Your task to perform on an android device: turn off smart reply in the gmail app Image 0: 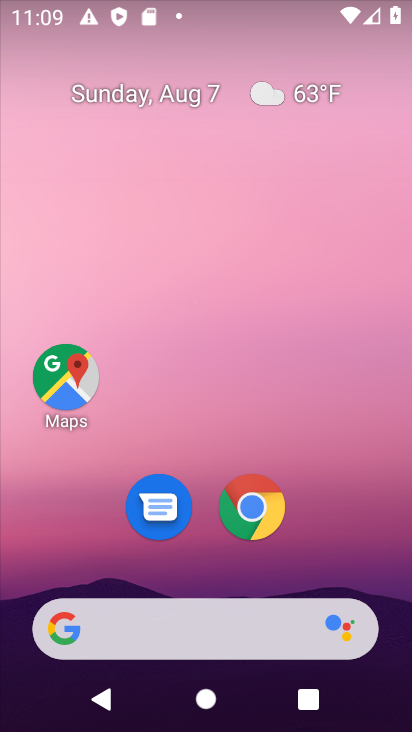
Step 0: drag from (339, 505) to (262, 106)
Your task to perform on an android device: turn off smart reply in the gmail app Image 1: 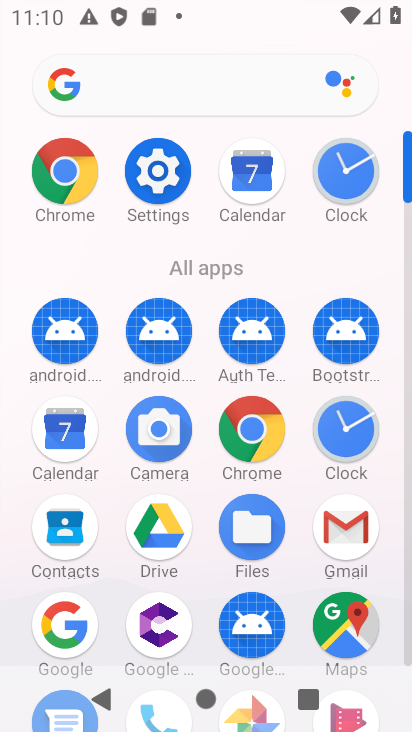
Step 1: click (333, 541)
Your task to perform on an android device: turn off smart reply in the gmail app Image 2: 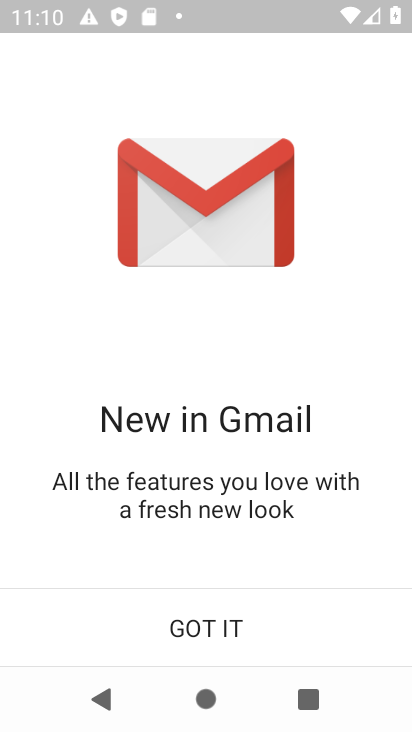
Step 2: click (274, 623)
Your task to perform on an android device: turn off smart reply in the gmail app Image 3: 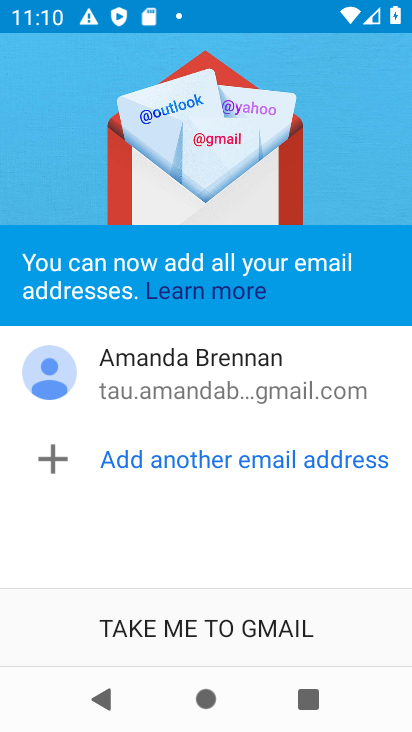
Step 3: click (208, 618)
Your task to perform on an android device: turn off smart reply in the gmail app Image 4: 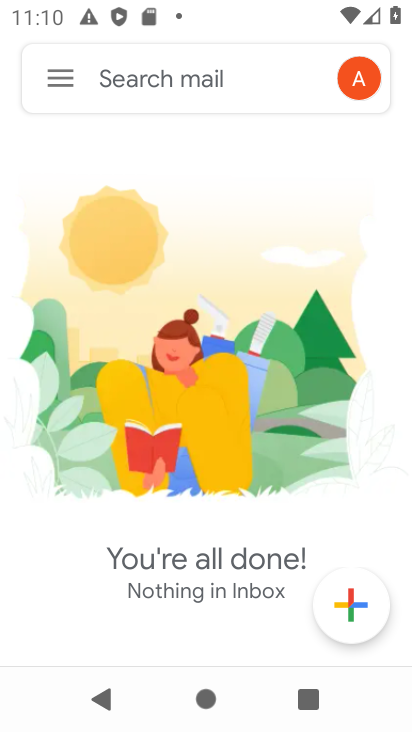
Step 4: click (54, 72)
Your task to perform on an android device: turn off smart reply in the gmail app Image 5: 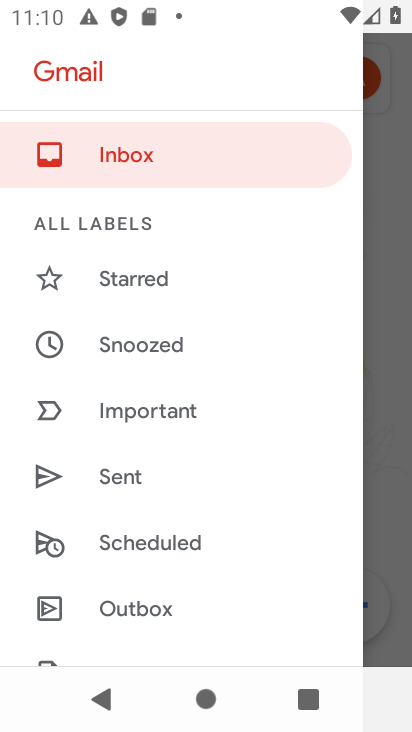
Step 5: drag from (260, 597) to (216, 395)
Your task to perform on an android device: turn off smart reply in the gmail app Image 6: 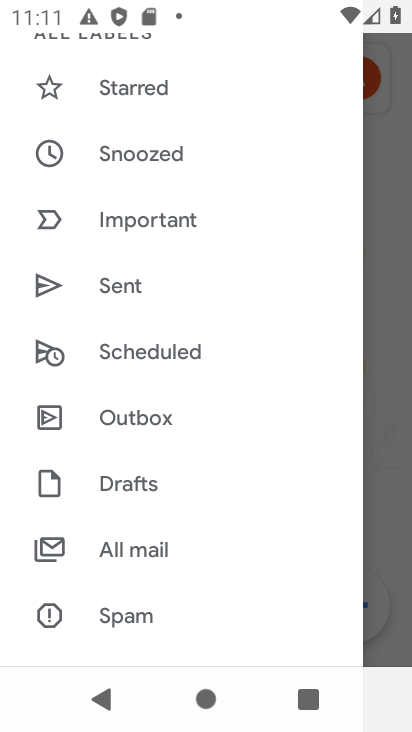
Step 6: drag from (189, 539) to (158, 61)
Your task to perform on an android device: turn off smart reply in the gmail app Image 7: 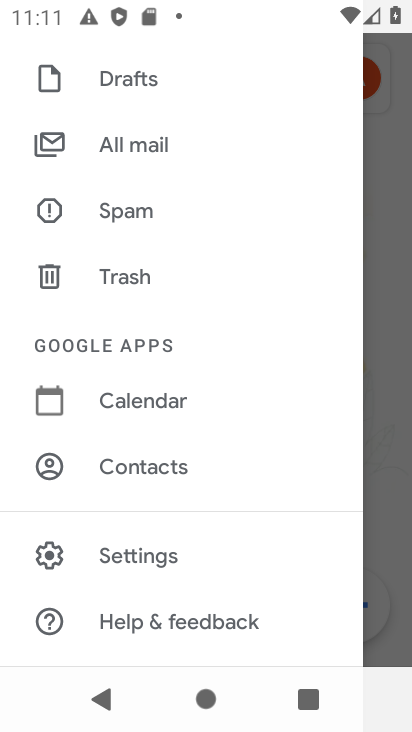
Step 7: click (170, 552)
Your task to perform on an android device: turn off smart reply in the gmail app Image 8: 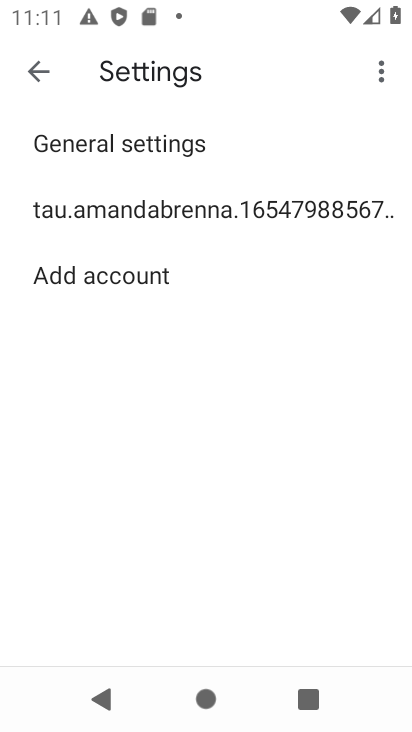
Step 8: click (168, 201)
Your task to perform on an android device: turn off smart reply in the gmail app Image 9: 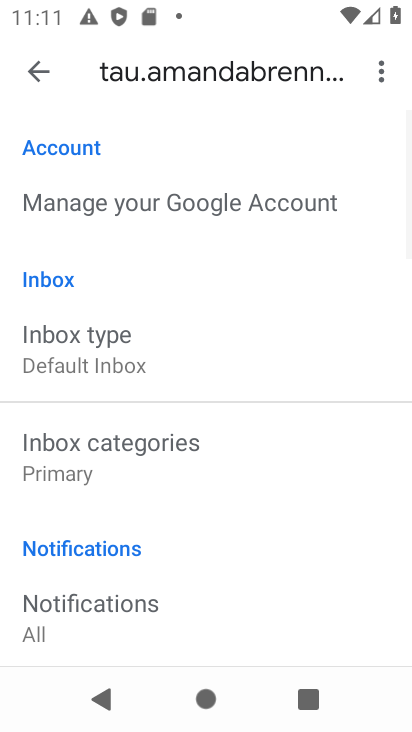
Step 9: drag from (285, 498) to (172, 186)
Your task to perform on an android device: turn off smart reply in the gmail app Image 10: 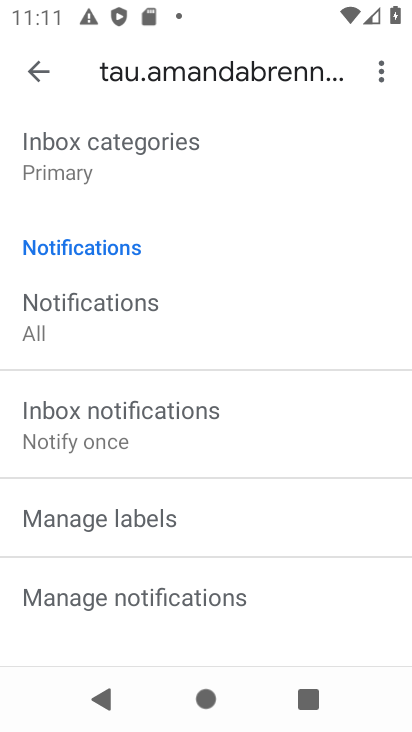
Step 10: drag from (244, 492) to (149, 3)
Your task to perform on an android device: turn off smart reply in the gmail app Image 11: 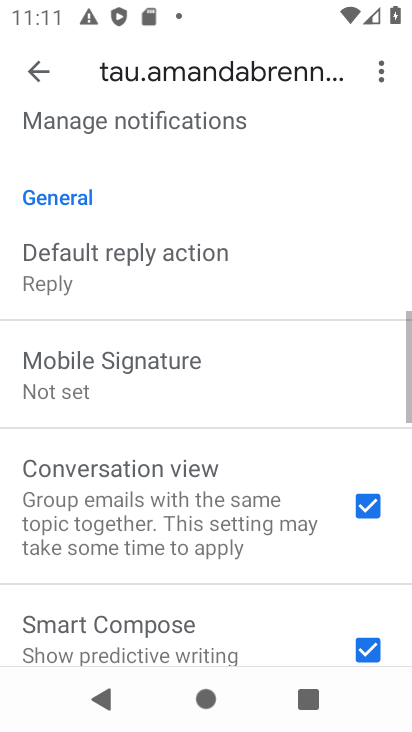
Step 11: drag from (295, 549) to (208, 253)
Your task to perform on an android device: turn off smart reply in the gmail app Image 12: 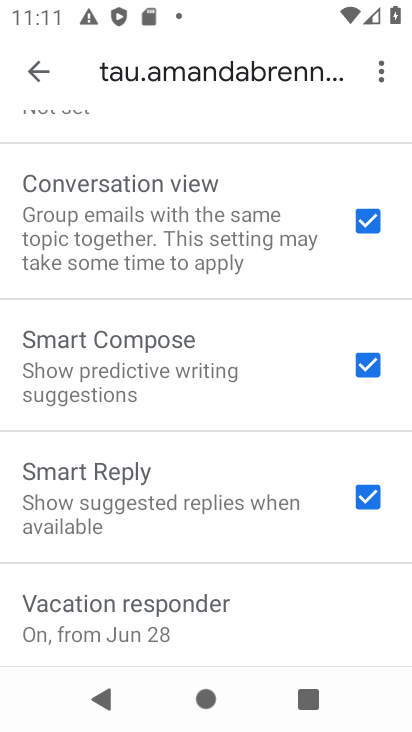
Step 12: click (365, 505)
Your task to perform on an android device: turn off smart reply in the gmail app Image 13: 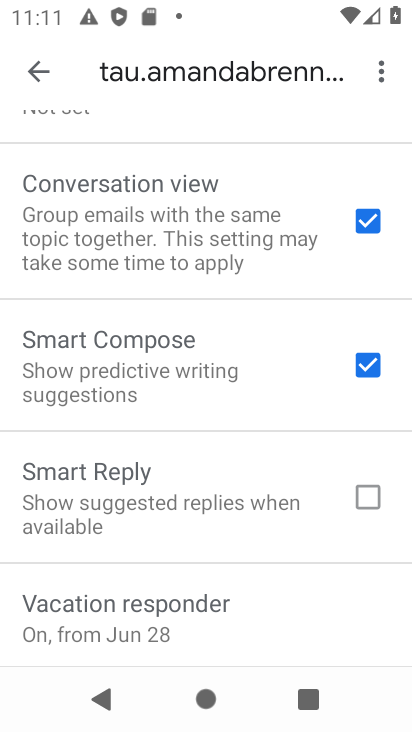
Step 13: task complete